Your task to perform on an android device: Search for "panasonic triple a" on costco.com, select the first entry, and add it to the cart. Image 0: 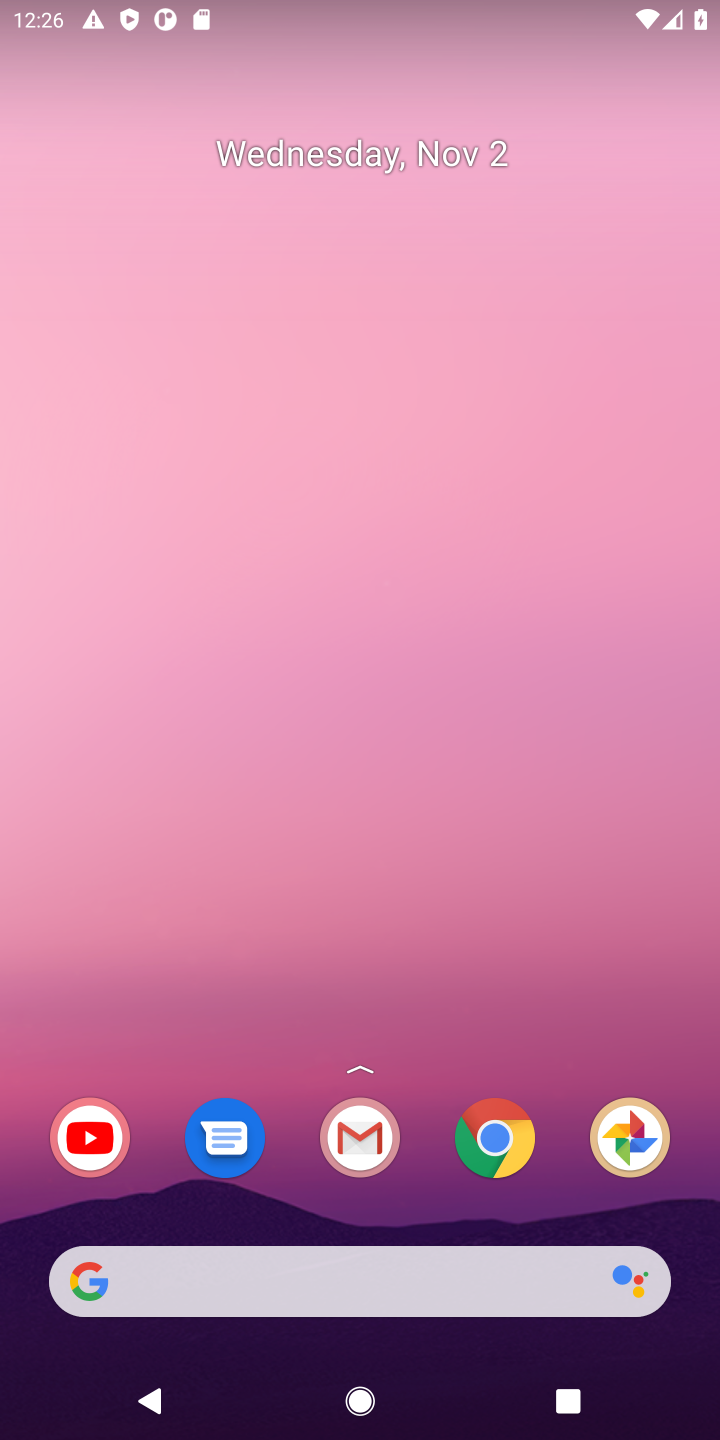
Step 0: press home button
Your task to perform on an android device: Search for "panasonic triple a" on costco.com, select the first entry, and add it to the cart. Image 1: 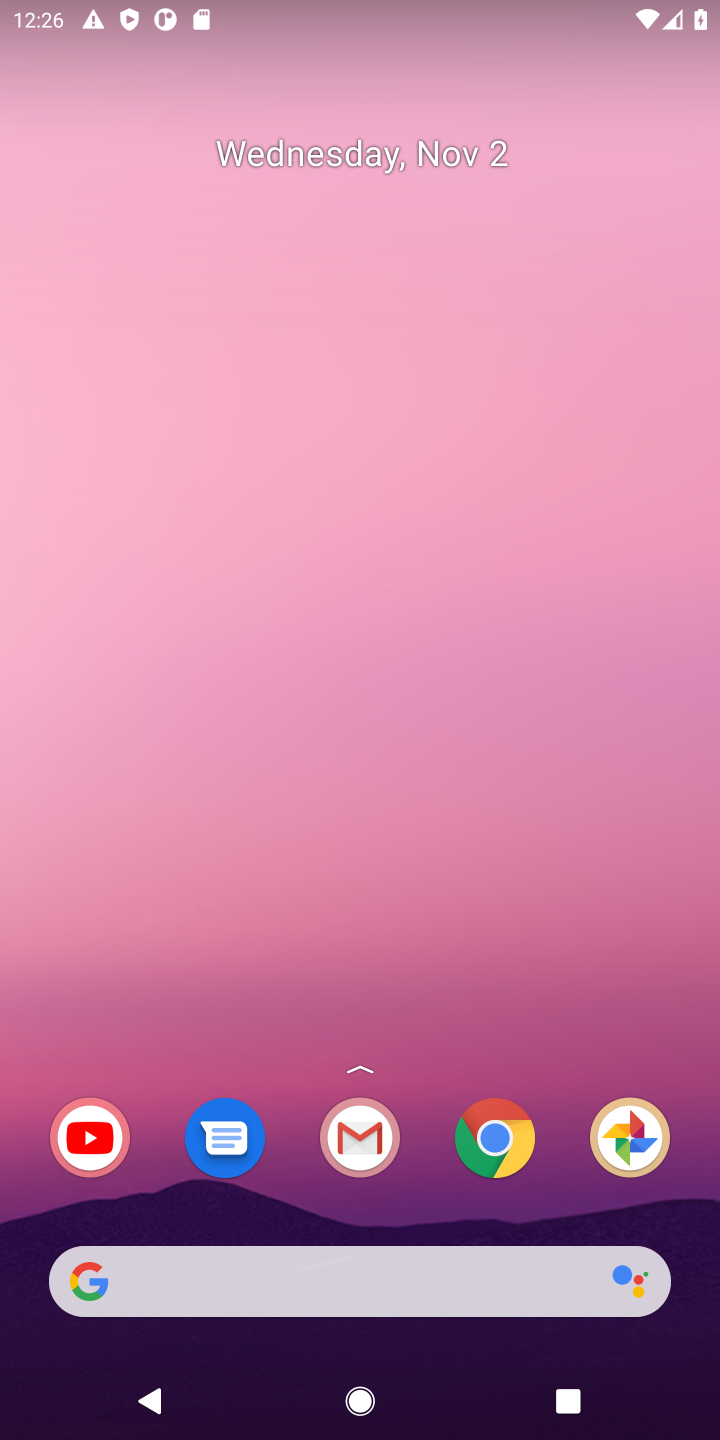
Step 1: click (145, 1274)
Your task to perform on an android device: Search for "panasonic triple a" on costco.com, select the first entry, and add it to the cart. Image 2: 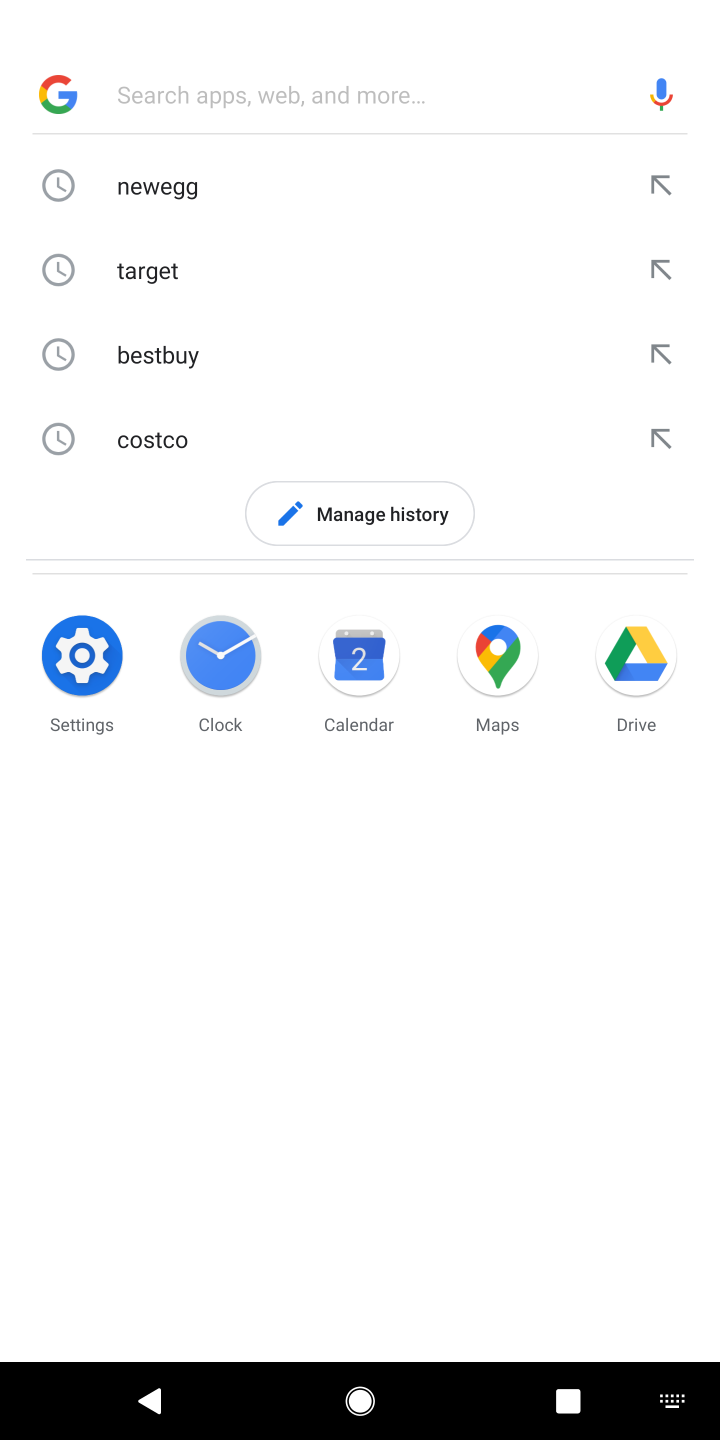
Step 2: type "costco.com"
Your task to perform on an android device: Search for "panasonic triple a" on costco.com, select the first entry, and add it to the cart. Image 3: 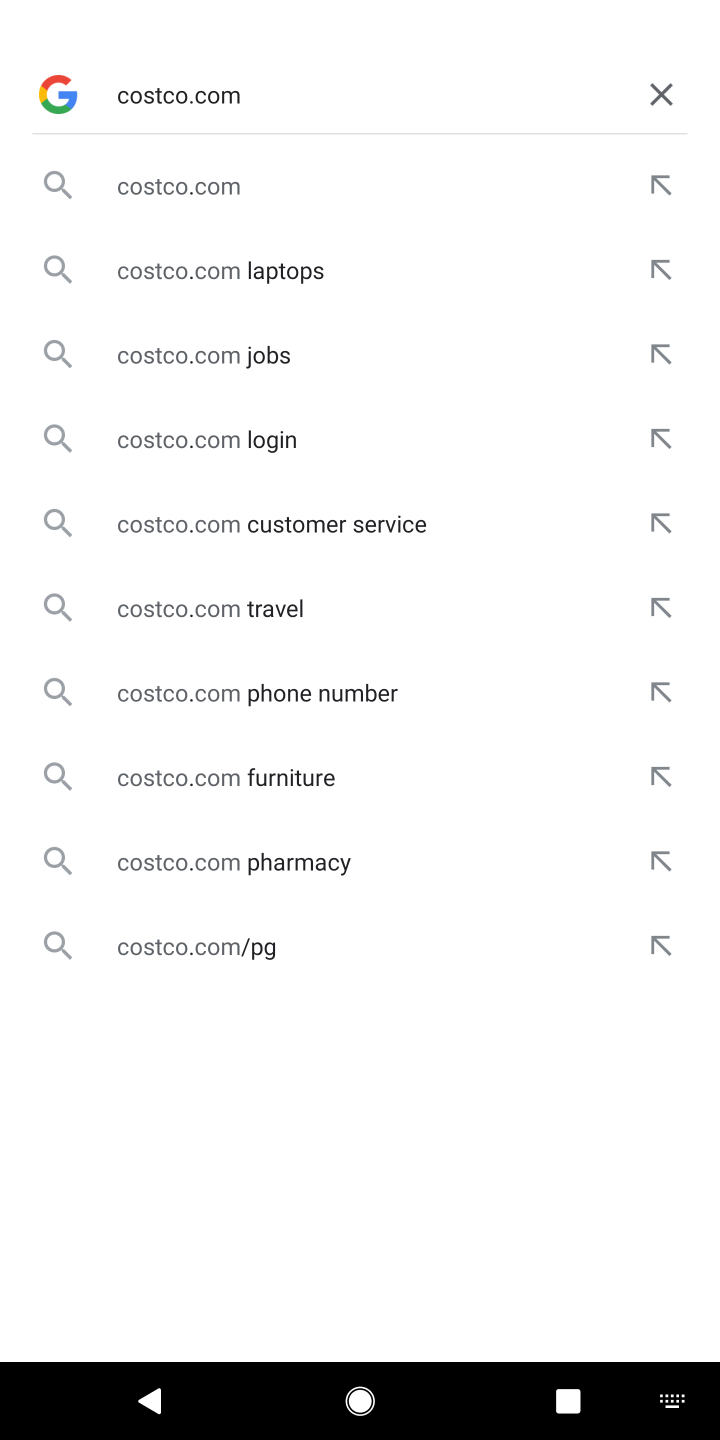
Step 3: press enter
Your task to perform on an android device: Search for "panasonic triple a" on costco.com, select the first entry, and add it to the cart. Image 4: 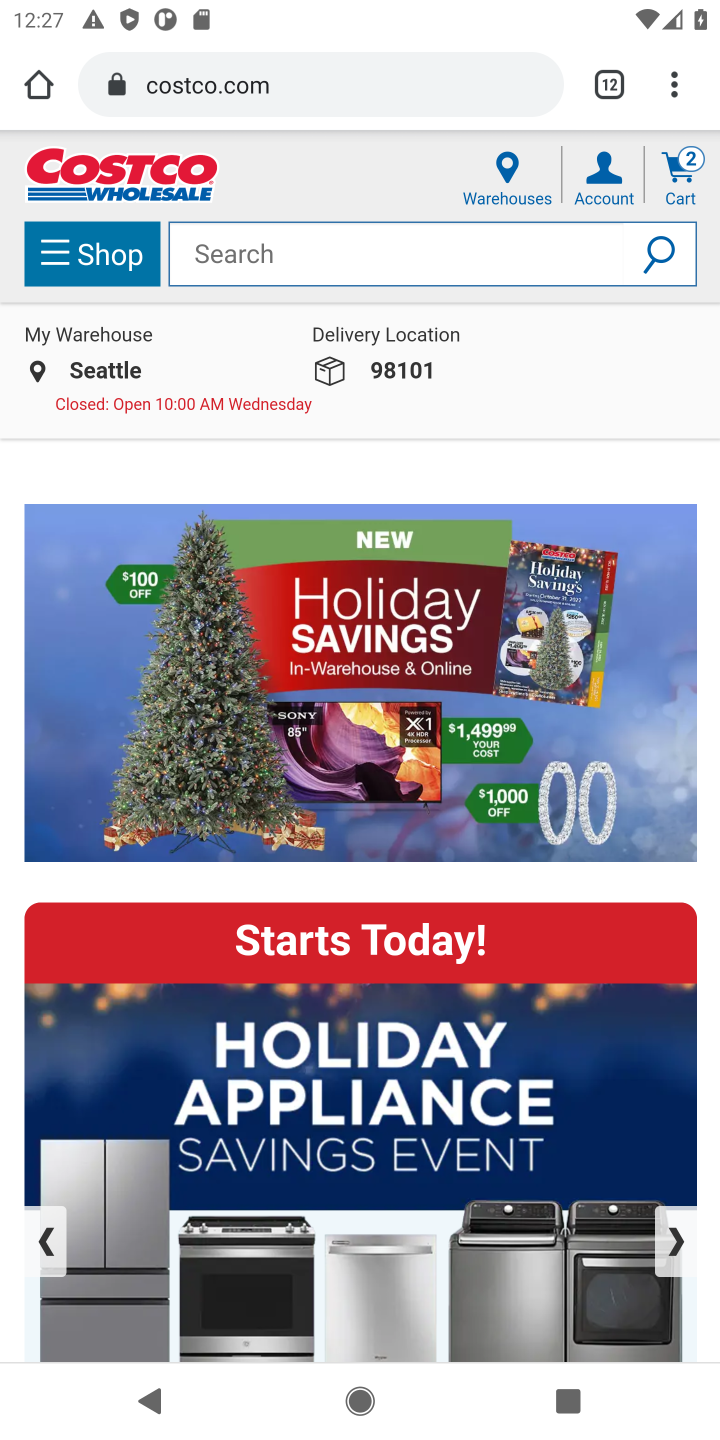
Step 4: click (229, 255)
Your task to perform on an android device: Search for "panasonic triple a" on costco.com, select the first entry, and add it to the cart. Image 5: 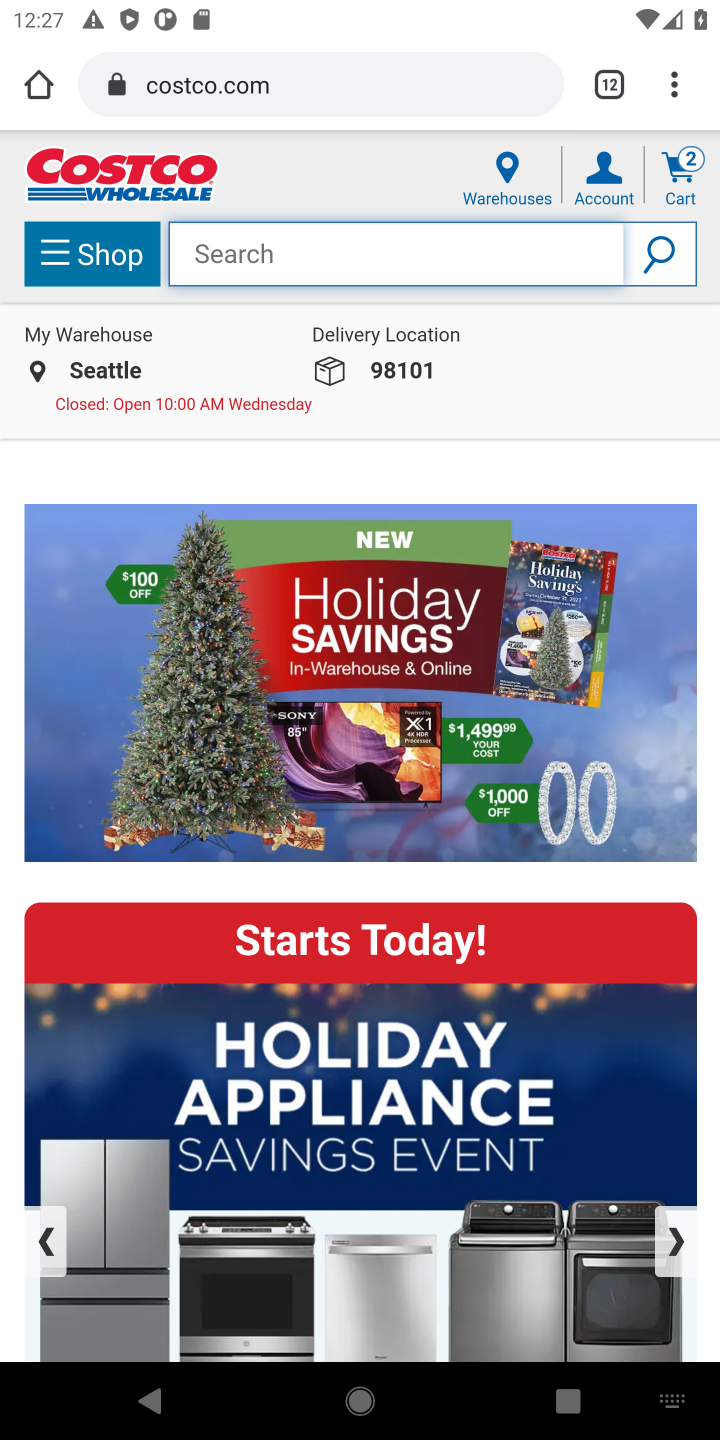
Step 5: type "panasonic triple a"
Your task to perform on an android device: Search for "panasonic triple a" on costco.com, select the first entry, and add it to the cart. Image 6: 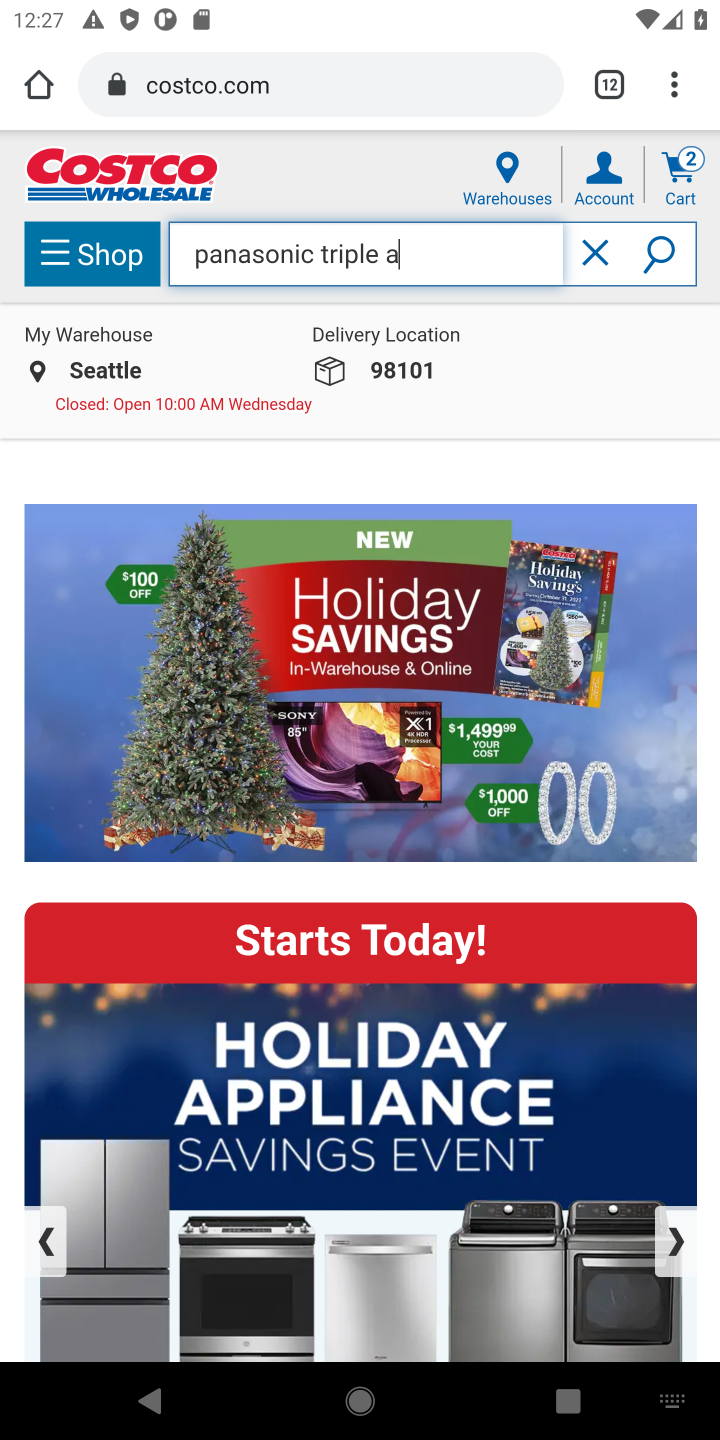
Step 6: press enter
Your task to perform on an android device: Search for "panasonic triple a" on costco.com, select the first entry, and add it to the cart. Image 7: 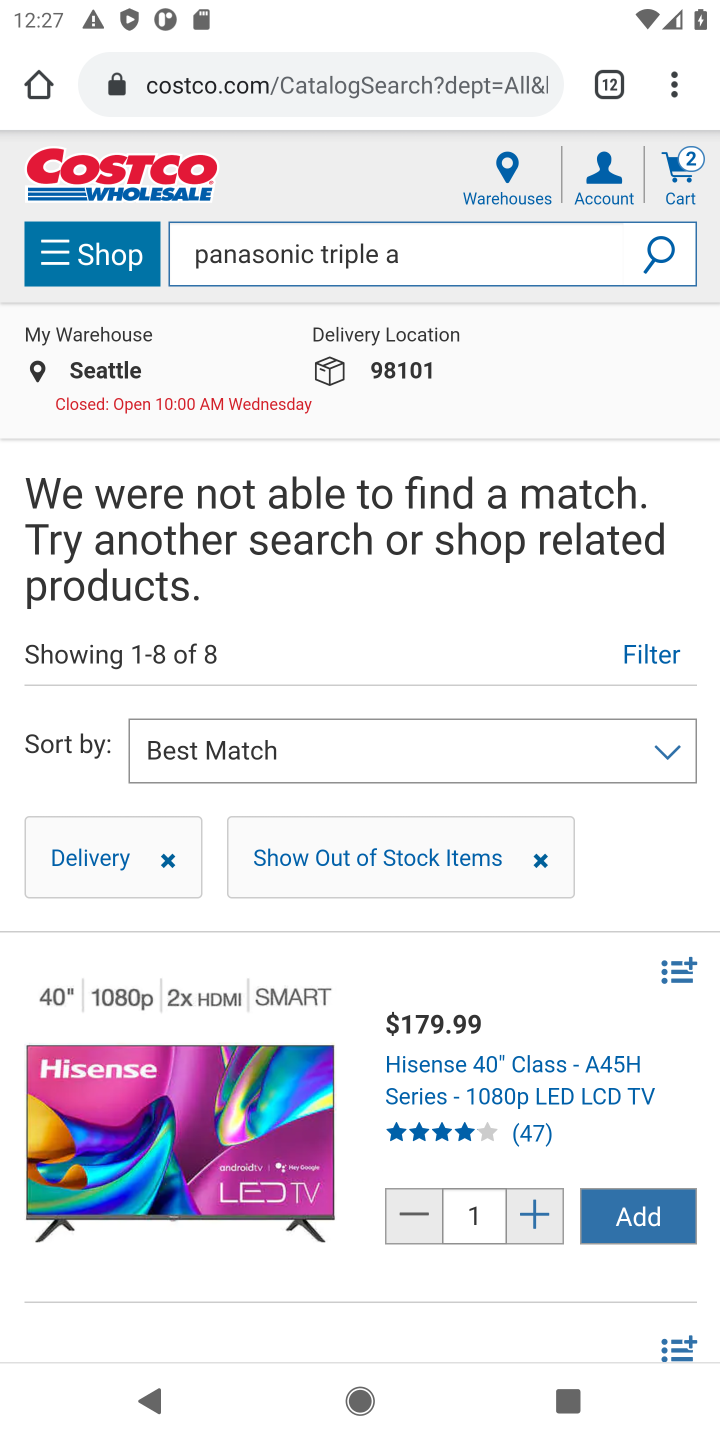
Step 7: task complete